Your task to perform on an android device: add a contact Image 0: 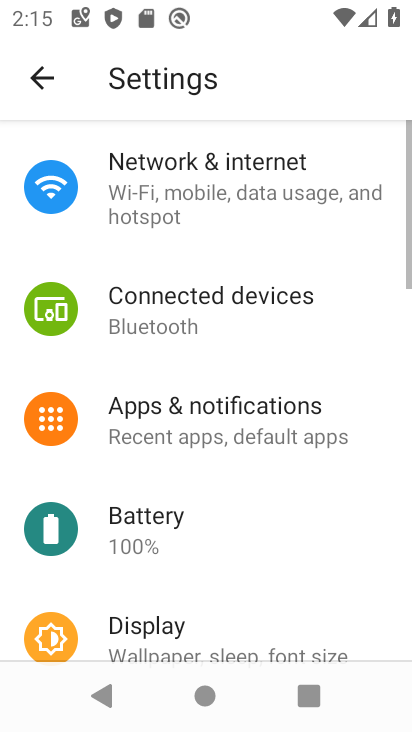
Step 0: press home button
Your task to perform on an android device: add a contact Image 1: 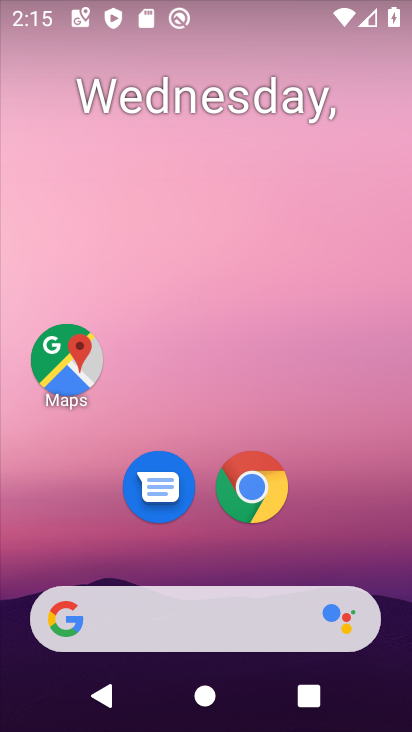
Step 1: drag from (346, 487) to (342, 58)
Your task to perform on an android device: add a contact Image 2: 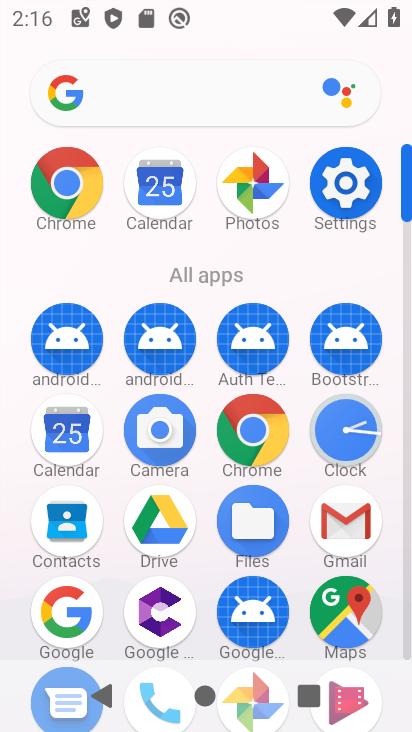
Step 2: drag from (391, 506) to (401, 201)
Your task to perform on an android device: add a contact Image 3: 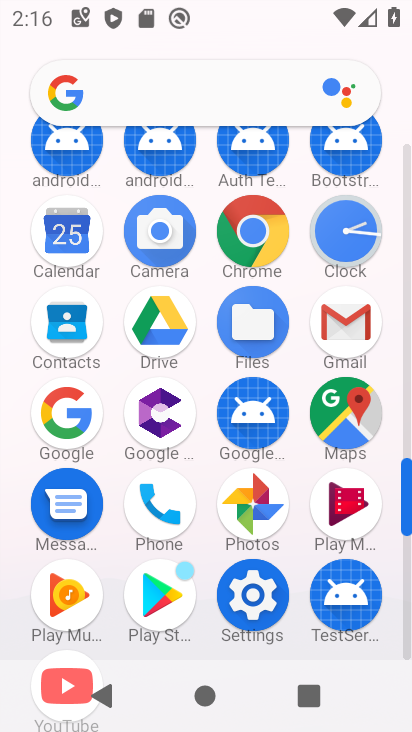
Step 3: click (163, 508)
Your task to perform on an android device: add a contact Image 4: 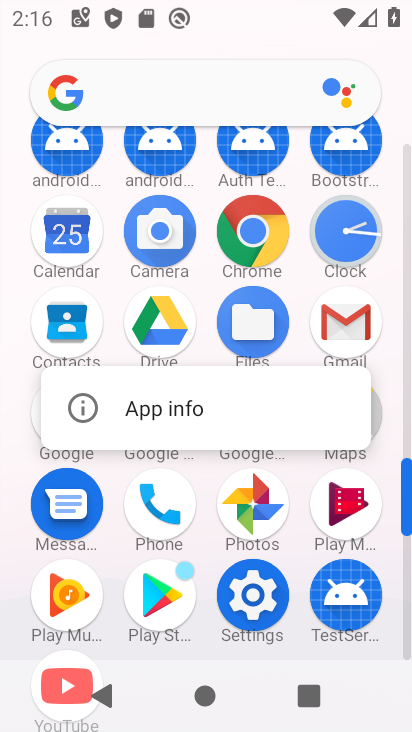
Step 4: click (163, 508)
Your task to perform on an android device: add a contact Image 5: 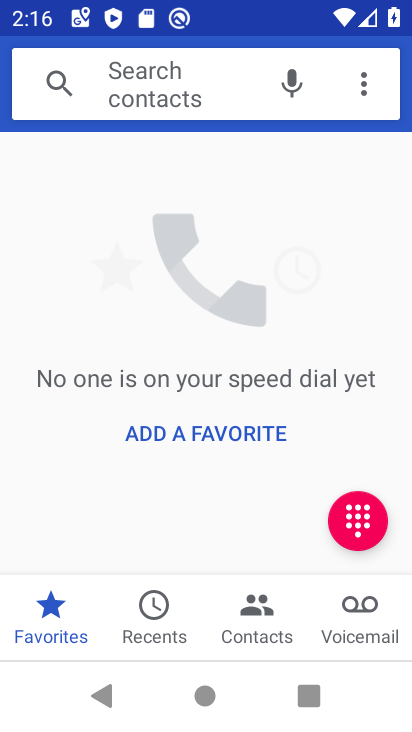
Step 5: click (234, 628)
Your task to perform on an android device: add a contact Image 6: 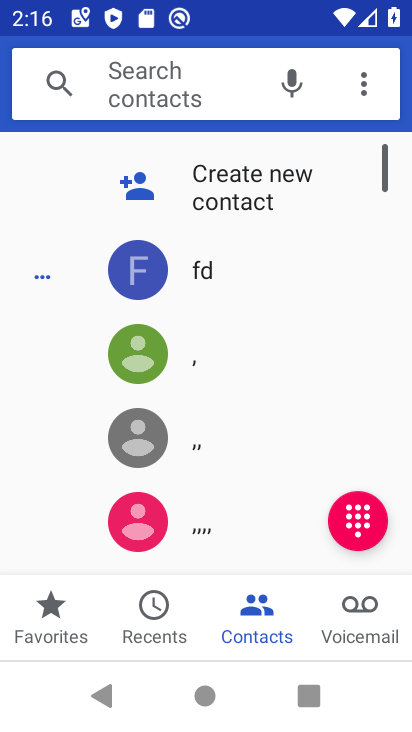
Step 6: click (204, 153)
Your task to perform on an android device: add a contact Image 7: 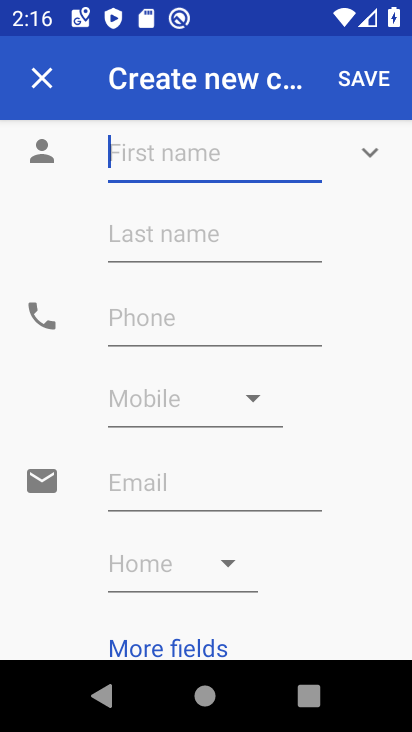
Step 7: type "tyyu"
Your task to perform on an android device: add a contact Image 8: 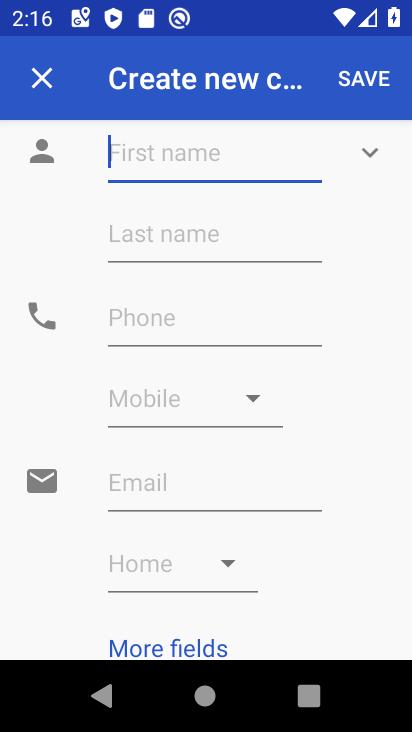
Step 8: click (178, 320)
Your task to perform on an android device: add a contact Image 9: 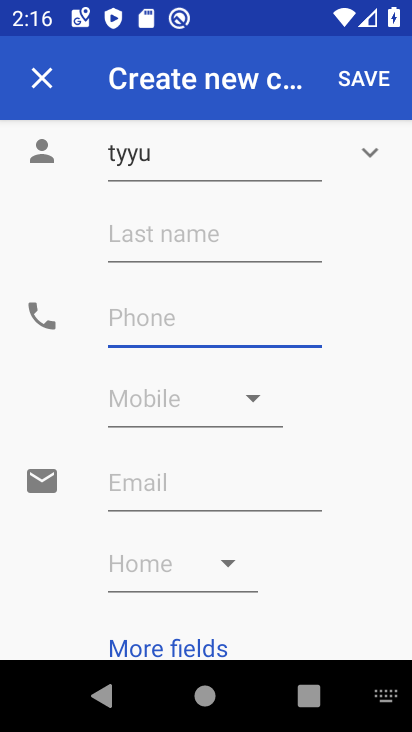
Step 9: type "567890"
Your task to perform on an android device: add a contact Image 10: 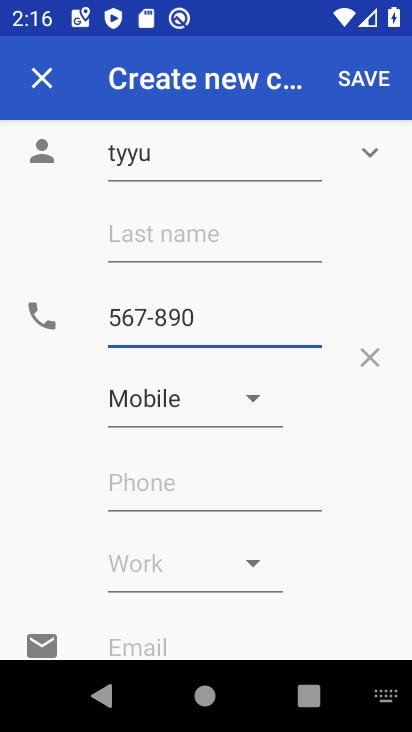
Step 10: click (343, 70)
Your task to perform on an android device: add a contact Image 11: 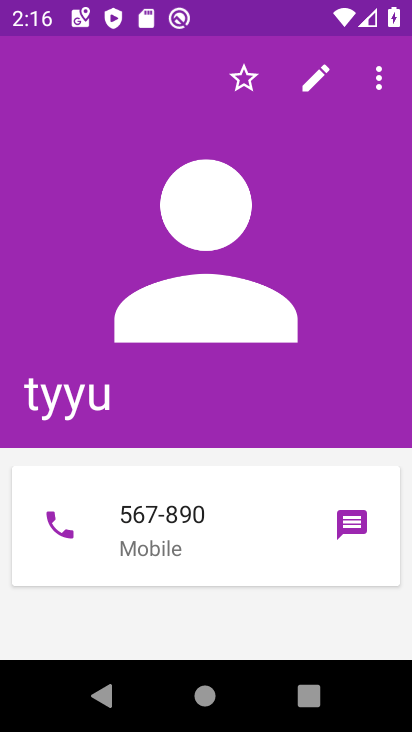
Step 11: task complete